Your task to perform on an android device: turn off translation in the chrome app Image 0: 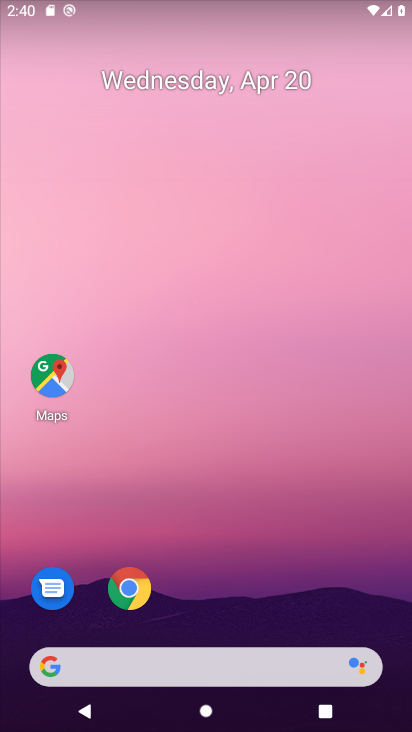
Step 0: drag from (350, 599) to (352, 122)
Your task to perform on an android device: turn off translation in the chrome app Image 1: 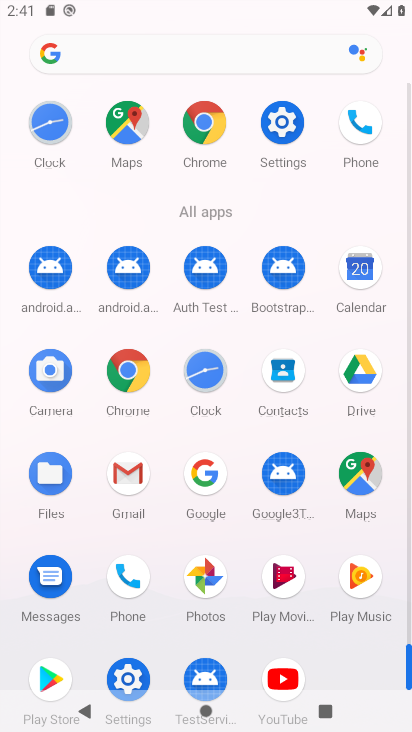
Step 1: click (114, 369)
Your task to perform on an android device: turn off translation in the chrome app Image 2: 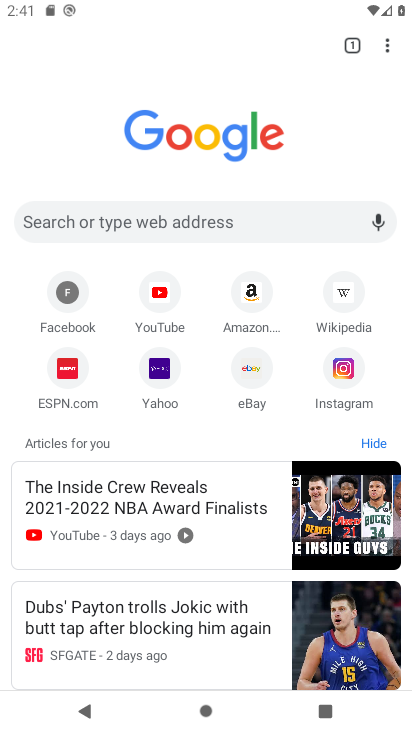
Step 2: click (388, 48)
Your task to perform on an android device: turn off translation in the chrome app Image 3: 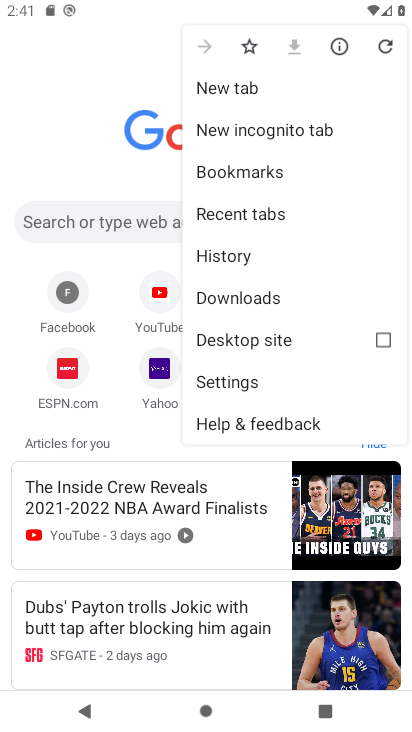
Step 3: click (249, 383)
Your task to perform on an android device: turn off translation in the chrome app Image 4: 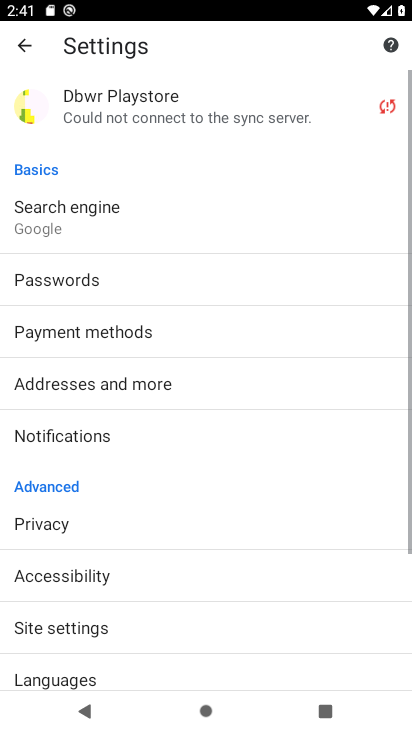
Step 4: drag from (339, 513) to (327, 338)
Your task to perform on an android device: turn off translation in the chrome app Image 5: 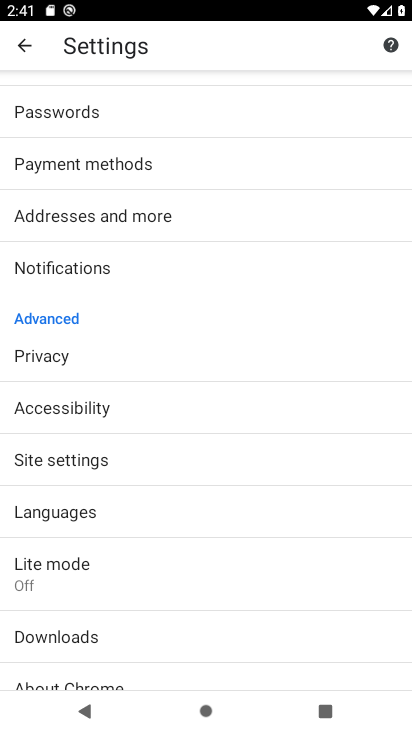
Step 5: drag from (323, 550) to (333, 370)
Your task to perform on an android device: turn off translation in the chrome app Image 6: 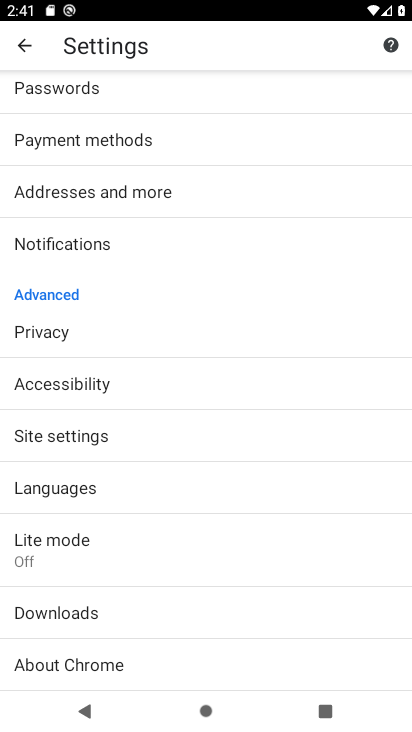
Step 6: drag from (319, 584) to (320, 405)
Your task to perform on an android device: turn off translation in the chrome app Image 7: 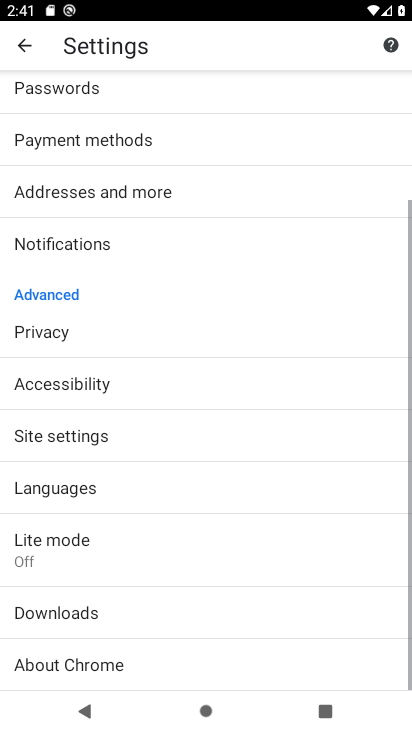
Step 7: drag from (328, 296) to (320, 532)
Your task to perform on an android device: turn off translation in the chrome app Image 8: 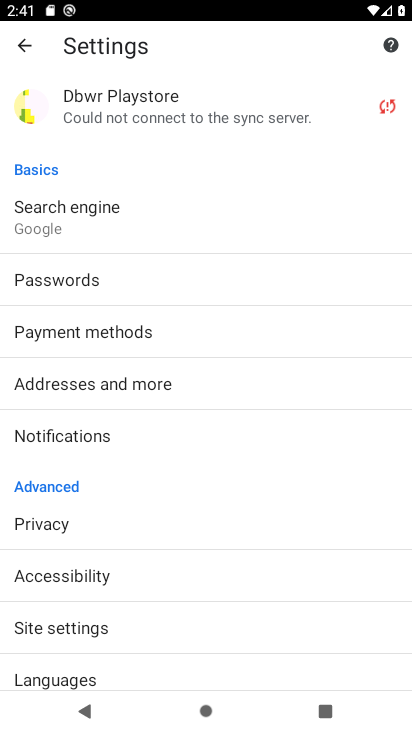
Step 8: drag from (289, 595) to (300, 391)
Your task to perform on an android device: turn off translation in the chrome app Image 9: 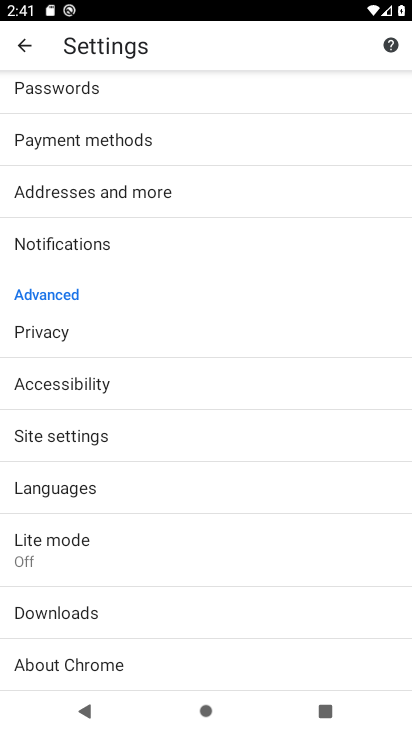
Step 9: click (170, 481)
Your task to perform on an android device: turn off translation in the chrome app Image 10: 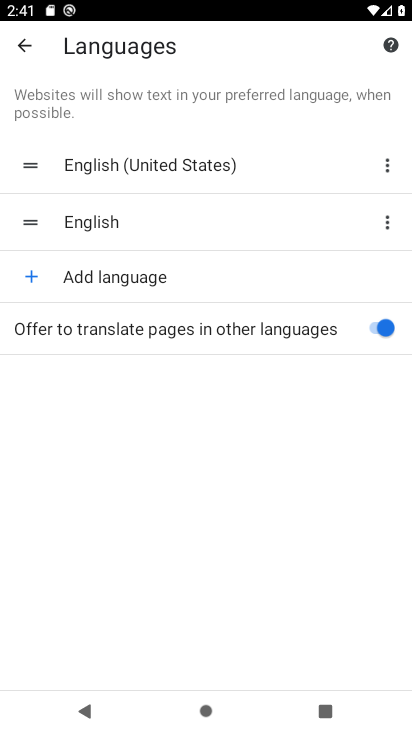
Step 10: click (383, 322)
Your task to perform on an android device: turn off translation in the chrome app Image 11: 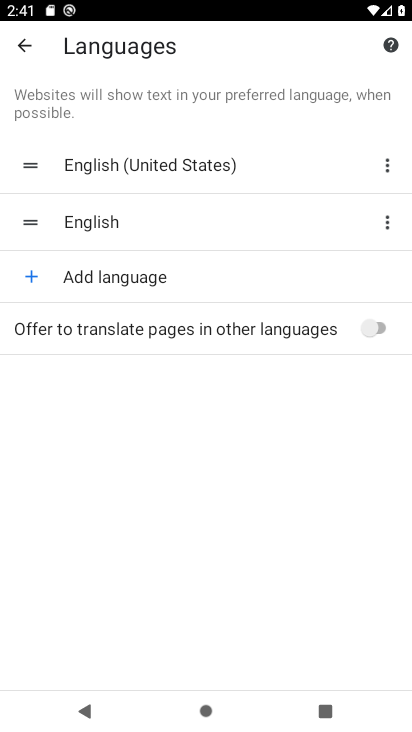
Step 11: task complete